Your task to perform on an android device: Open Google Maps Image 0: 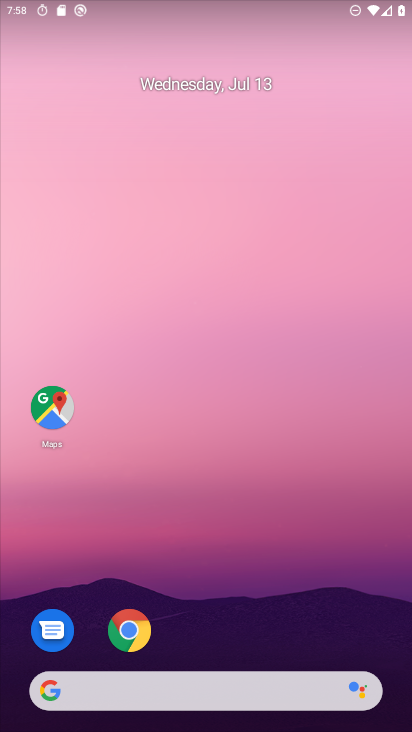
Step 0: drag from (362, 638) to (235, 6)
Your task to perform on an android device: Open Google Maps Image 1: 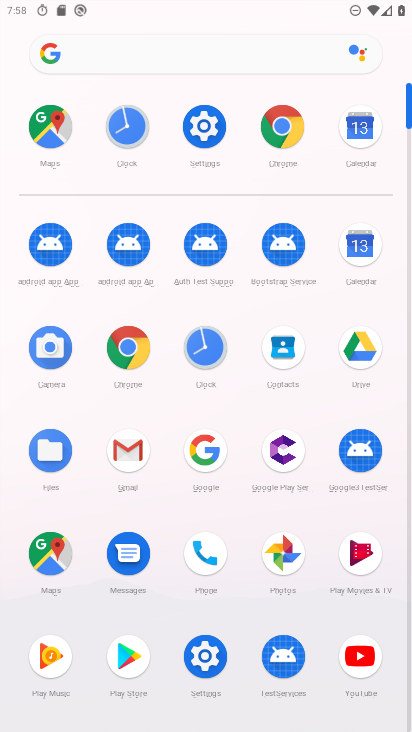
Step 1: click (43, 569)
Your task to perform on an android device: Open Google Maps Image 2: 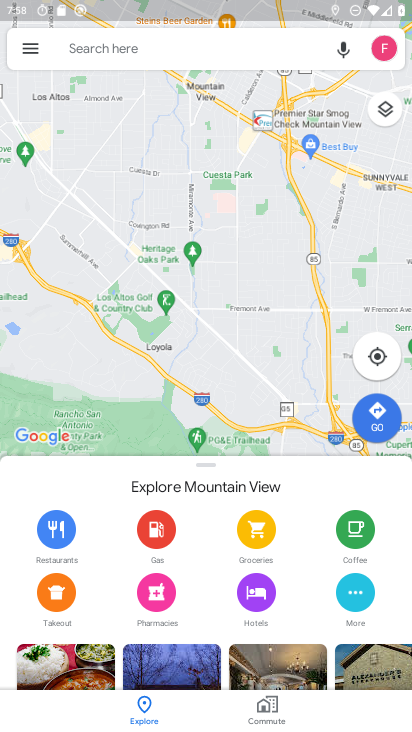
Step 2: task complete